Your task to perform on an android device: open chrome and create a bookmark for the current page Image 0: 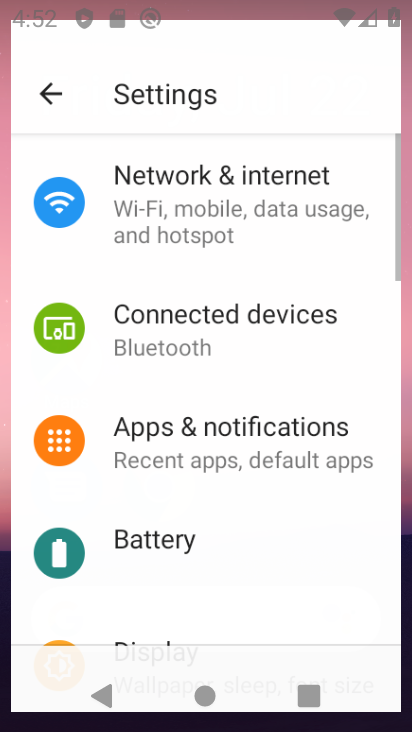
Step 0: drag from (334, 568) to (294, 195)
Your task to perform on an android device: open chrome and create a bookmark for the current page Image 1: 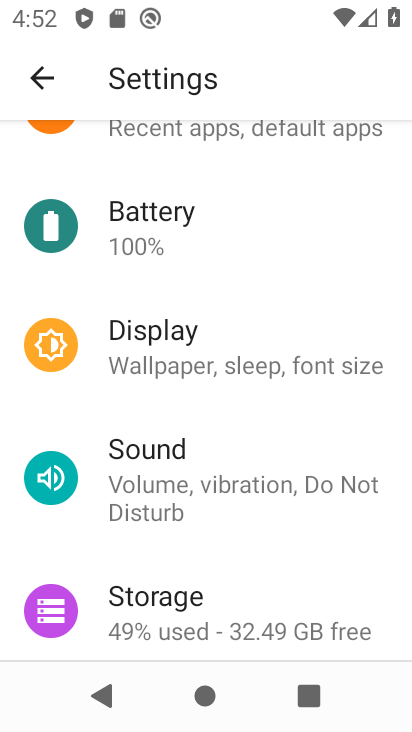
Step 1: press home button
Your task to perform on an android device: open chrome and create a bookmark for the current page Image 2: 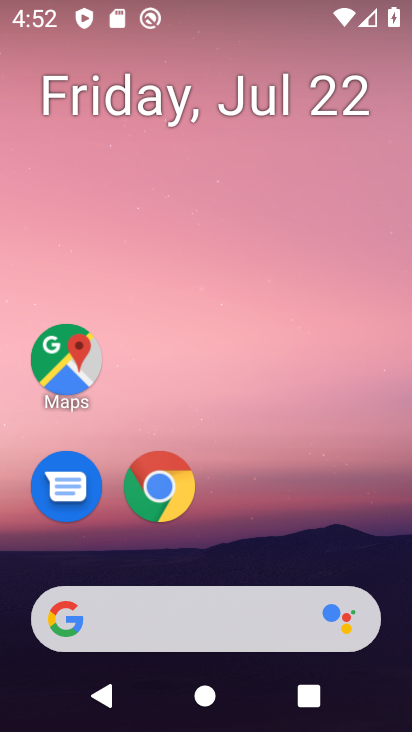
Step 2: drag from (389, 537) to (299, 165)
Your task to perform on an android device: open chrome and create a bookmark for the current page Image 3: 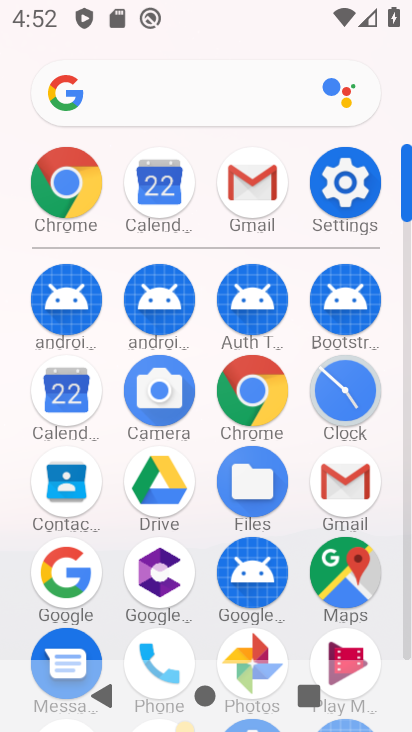
Step 3: click (75, 201)
Your task to perform on an android device: open chrome and create a bookmark for the current page Image 4: 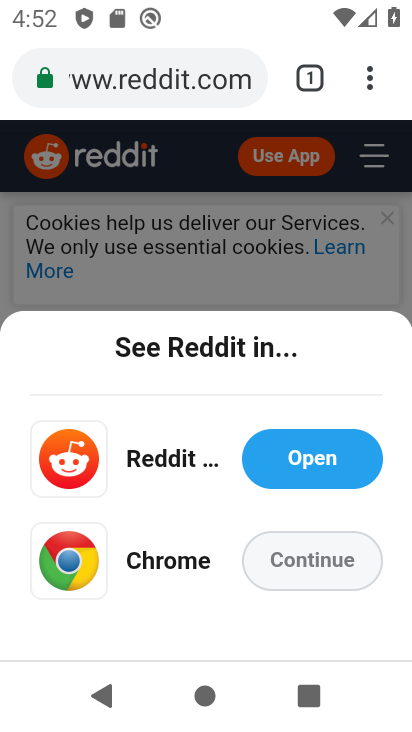
Step 4: click (369, 94)
Your task to perform on an android device: open chrome and create a bookmark for the current page Image 5: 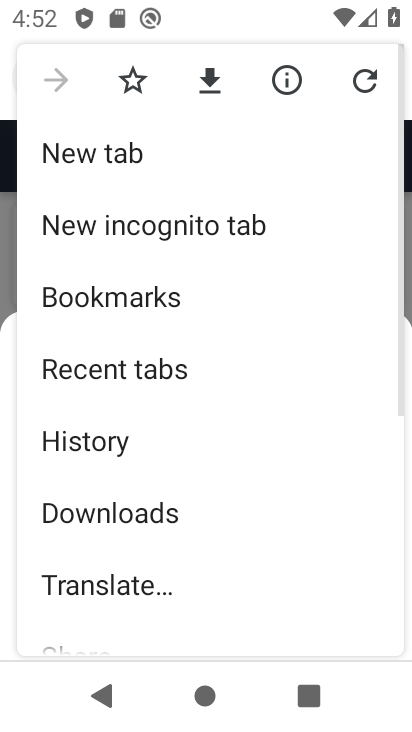
Step 5: click (139, 85)
Your task to perform on an android device: open chrome and create a bookmark for the current page Image 6: 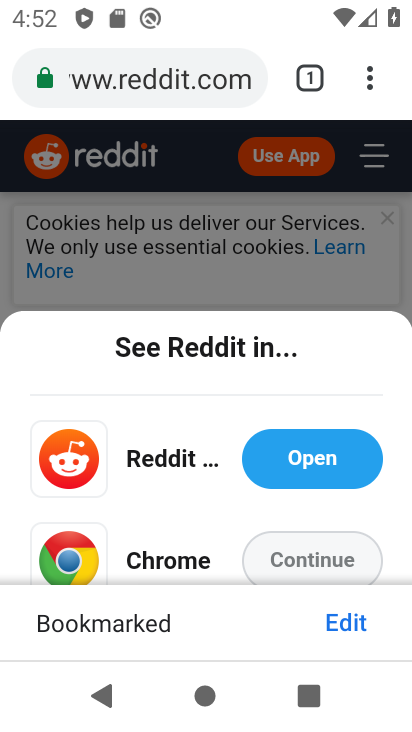
Step 6: task complete